Your task to perform on an android device: Turn off the flashlight Image 0: 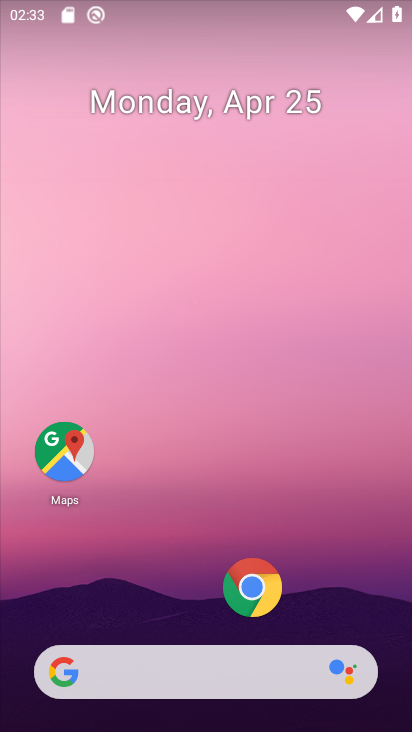
Step 0: drag from (201, 618) to (200, 73)
Your task to perform on an android device: Turn off the flashlight Image 1: 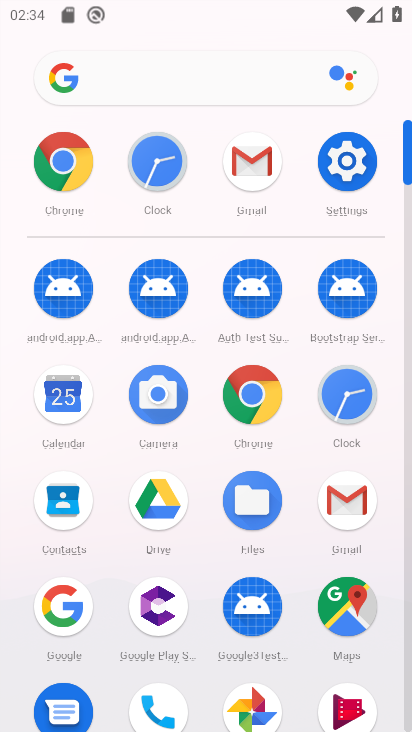
Step 1: click (346, 157)
Your task to perform on an android device: Turn off the flashlight Image 2: 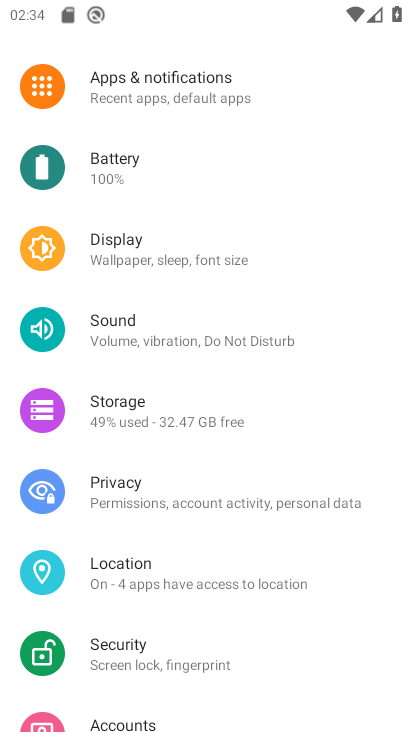
Step 2: drag from (182, 154) to (199, 671)
Your task to perform on an android device: Turn off the flashlight Image 3: 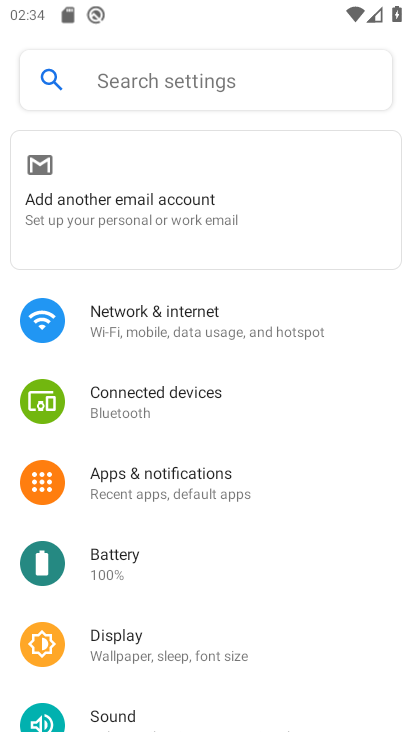
Step 3: click (147, 66)
Your task to perform on an android device: Turn off the flashlight Image 4: 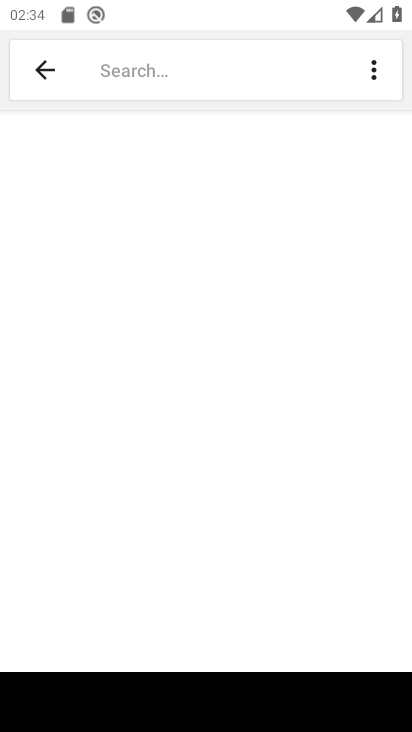
Step 4: type "flashlight"
Your task to perform on an android device: Turn off the flashlight Image 5: 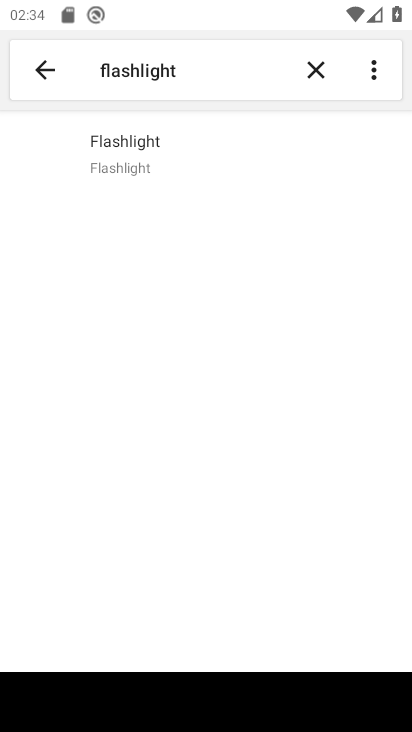
Step 5: click (153, 157)
Your task to perform on an android device: Turn off the flashlight Image 6: 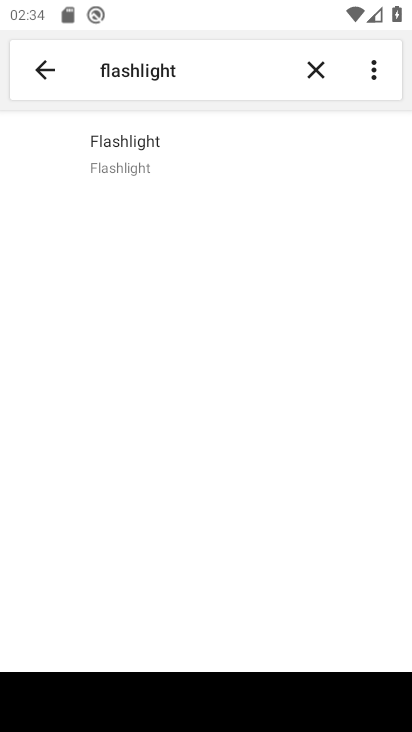
Step 6: task complete